Your task to perform on an android device: Open Google Chrome and click the shortcut for Amazon.com Image 0: 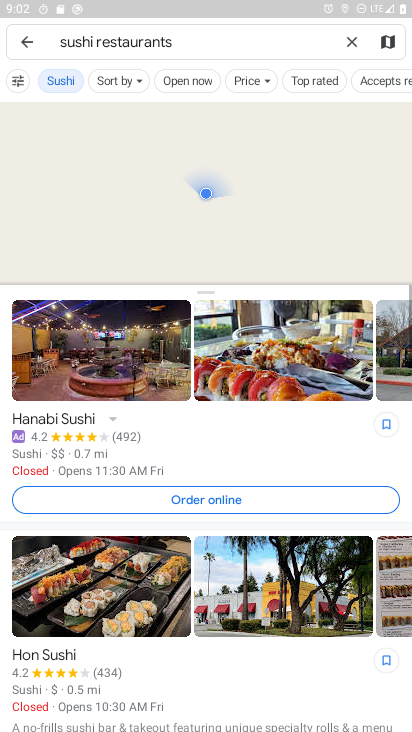
Step 0: press home button
Your task to perform on an android device: Open Google Chrome and click the shortcut for Amazon.com Image 1: 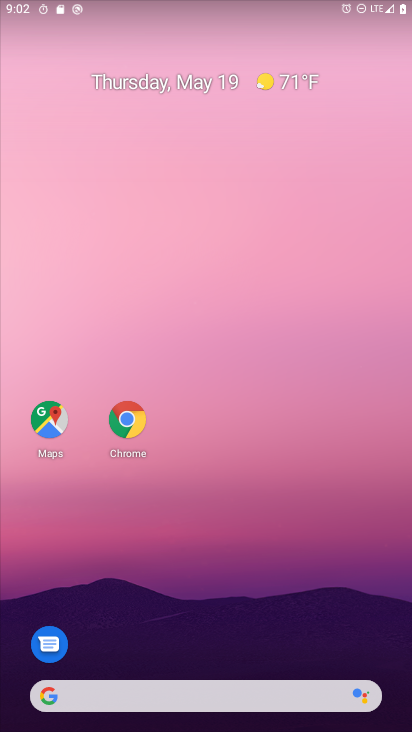
Step 1: click (132, 413)
Your task to perform on an android device: Open Google Chrome and click the shortcut for Amazon.com Image 2: 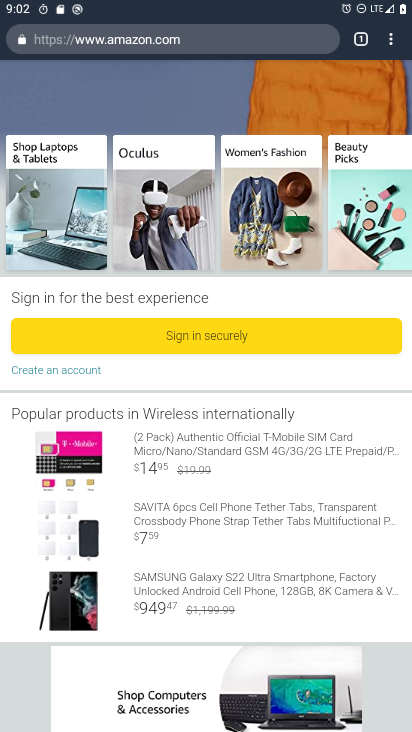
Step 2: task complete